Your task to perform on an android device: see tabs open on other devices in the chrome app Image 0: 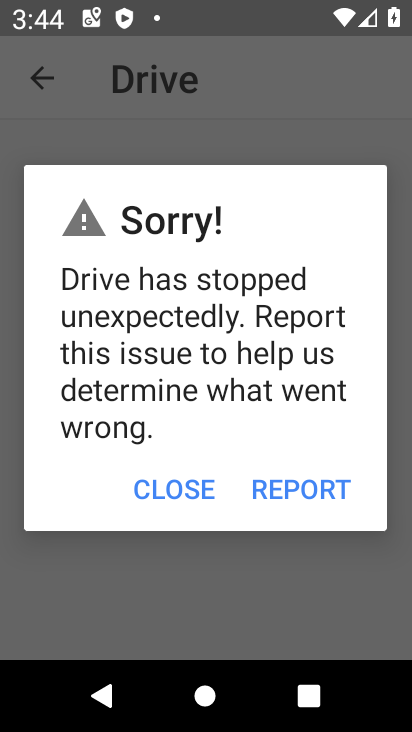
Step 0: click (150, 477)
Your task to perform on an android device: see tabs open on other devices in the chrome app Image 1: 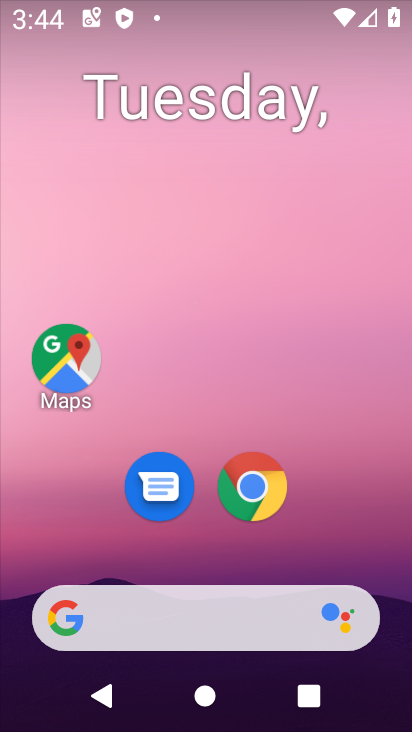
Step 1: click (261, 485)
Your task to perform on an android device: see tabs open on other devices in the chrome app Image 2: 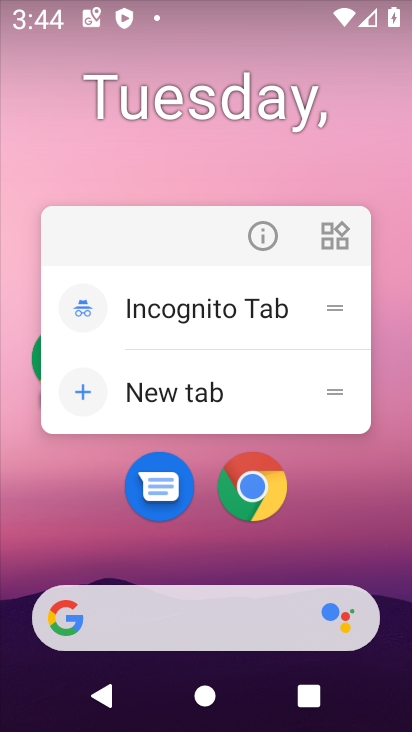
Step 2: click (256, 481)
Your task to perform on an android device: see tabs open on other devices in the chrome app Image 3: 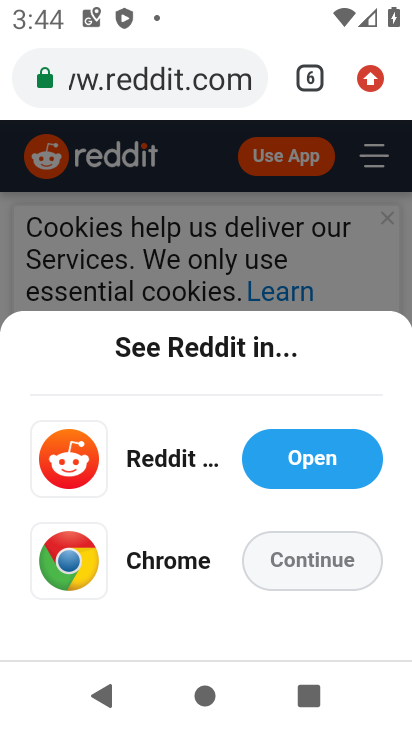
Step 3: task complete